Your task to perform on an android device: Open Google Image 0: 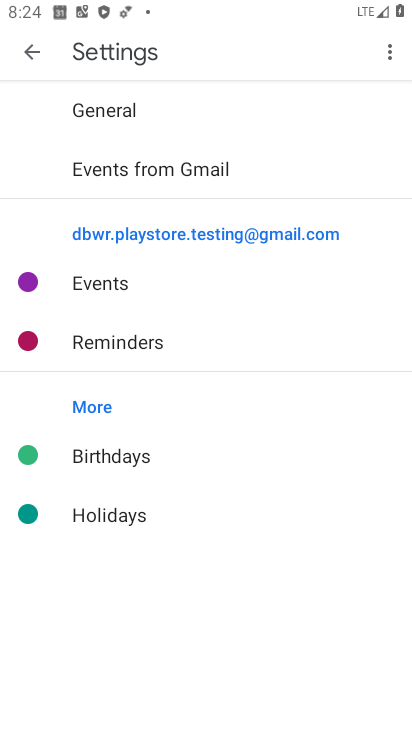
Step 0: press home button
Your task to perform on an android device: Open Google Image 1: 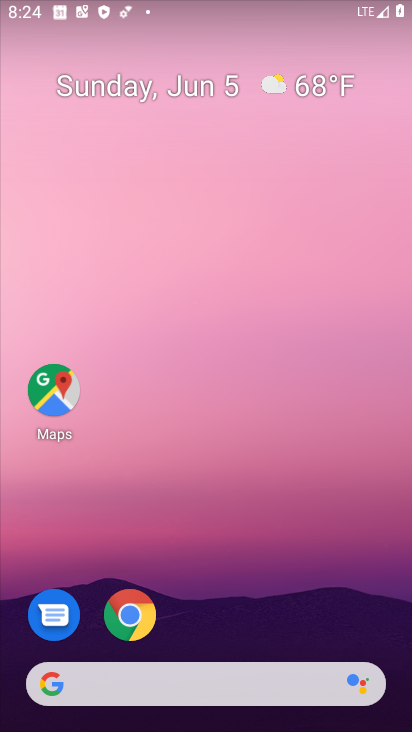
Step 1: drag from (200, 669) to (129, 50)
Your task to perform on an android device: Open Google Image 2: 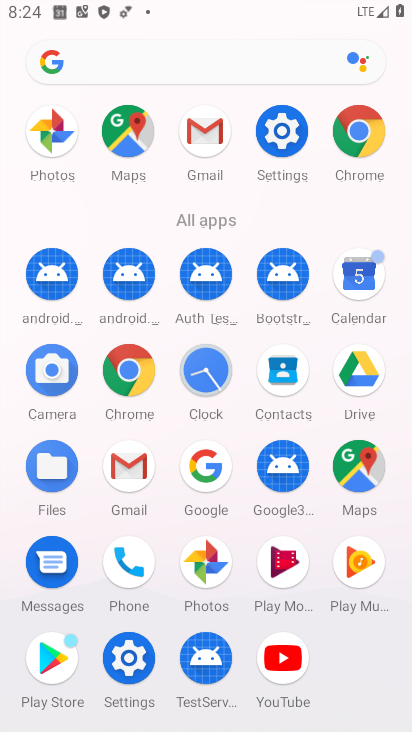
Step 2: click (201, 488)
Your task to perform on an android device: Open Google Image 3: 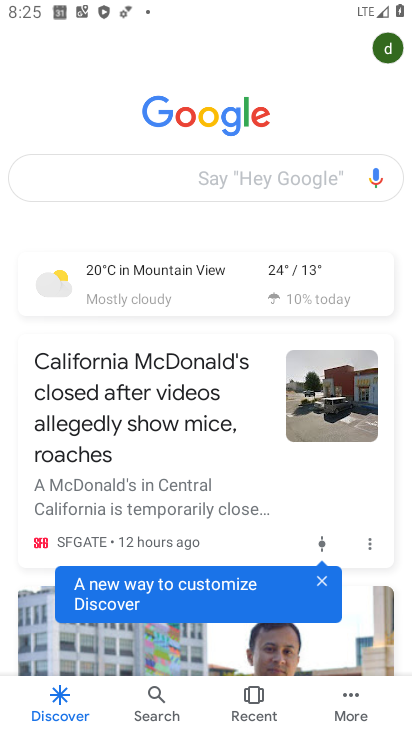
Step 3: task complete